Your task to perform on an android device: Open eBay Image 0: 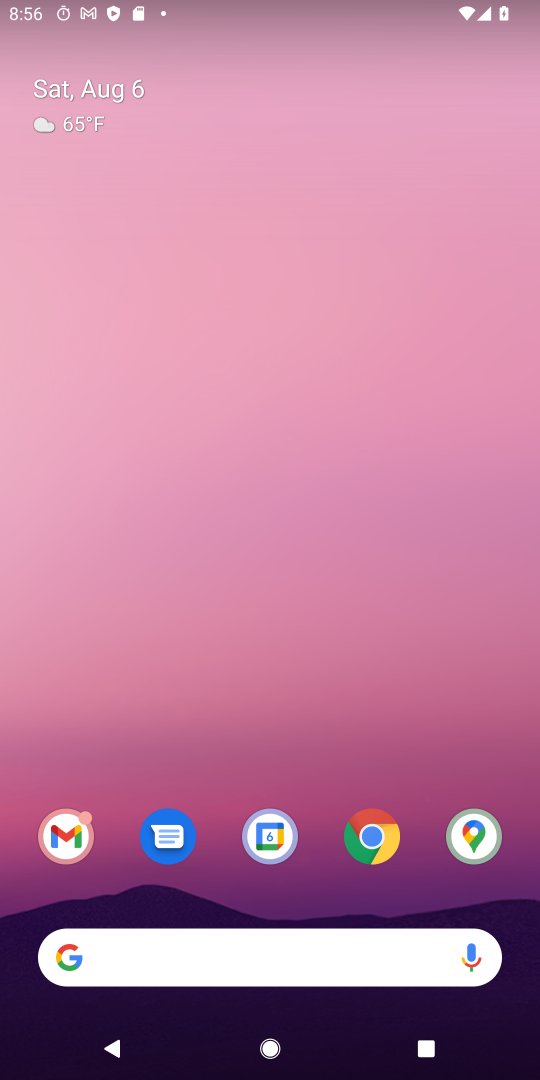
Step 0: drag from (418, 876) to (327, 72)
Your task to perform on an android device: Open eBay Image 1: 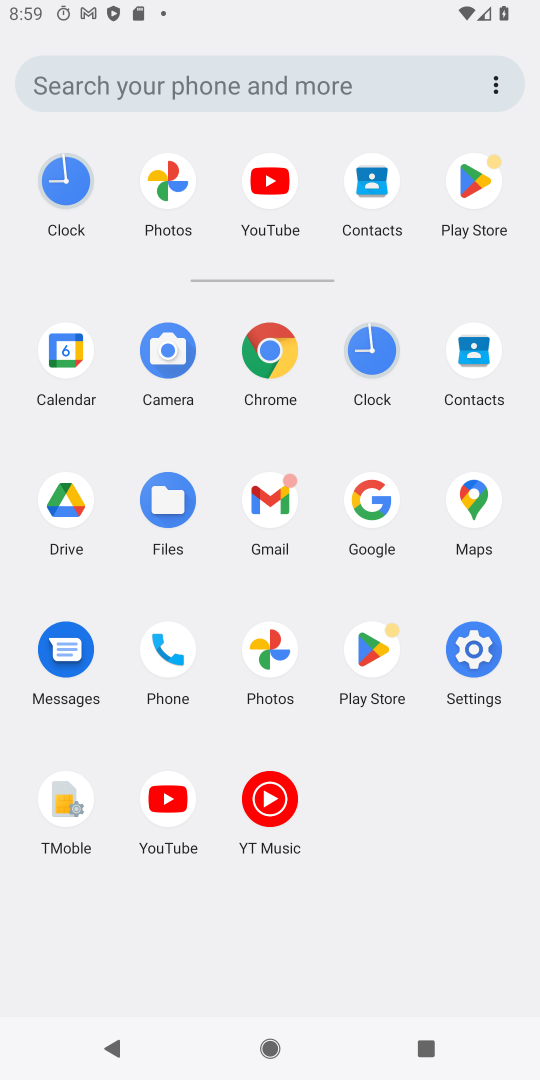
Step 1: click (343, 505)
Your task to perform on an android device: Open eBay Image 2: 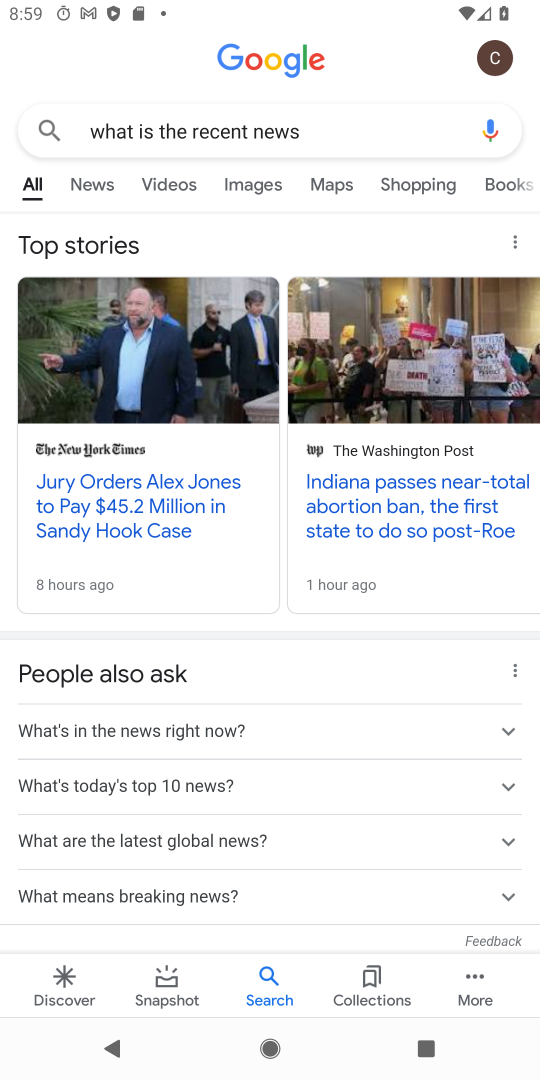
Step 2: press back button
Your task to perform on an android device: Open eBay Image 3: 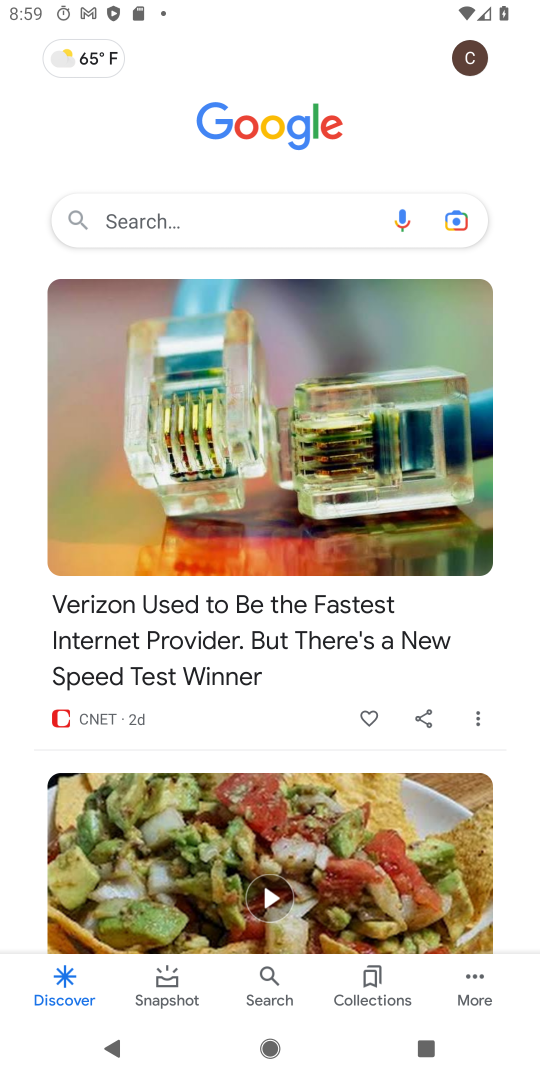
Step 3: click (112, 230)
Your task to perform on an android device: Open eBay Image 4: 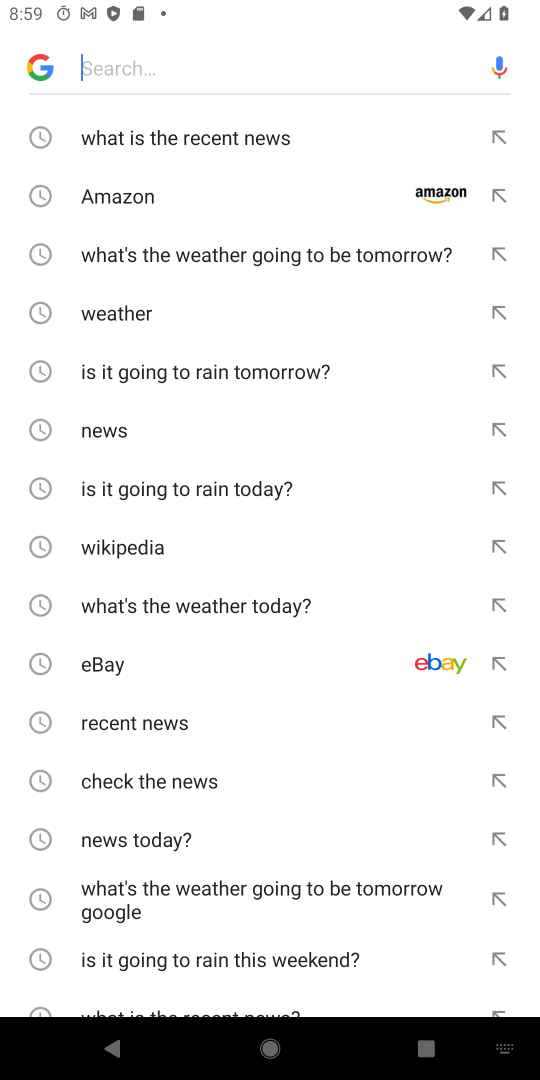
Step 4: click (133, 665)
Your task to perform on an android device: Open eBay Image 5: 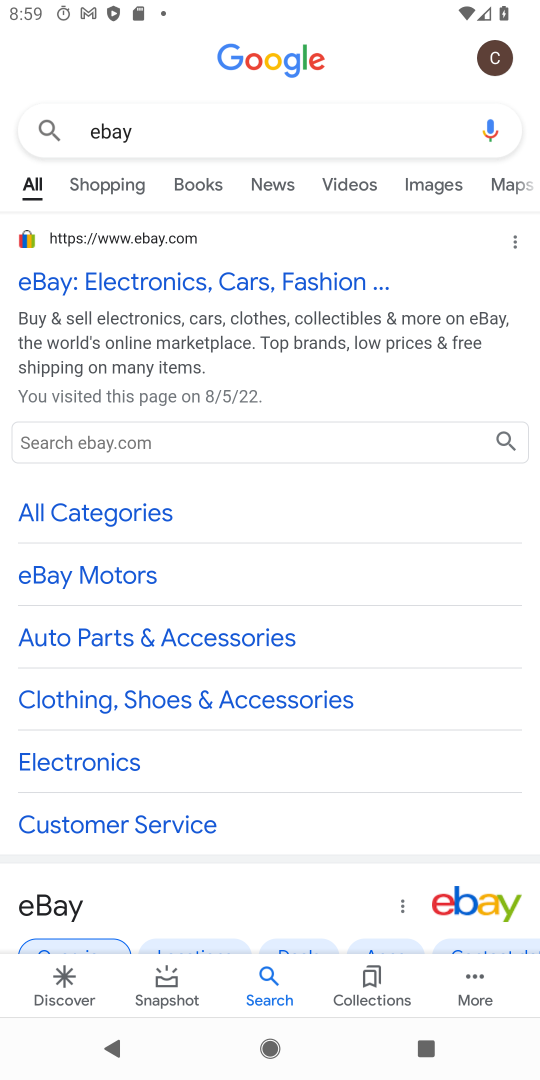
Step 5: task complete